Your task to perform on an android device: turn off improve location accuracy Image 0: 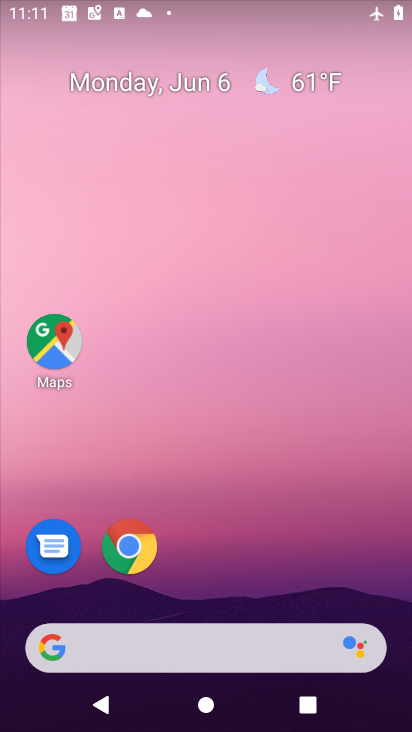
Step 0: drag from (360, 581) to (337, 20)
Your task to perform on an android device: turn off improve location accuracy Image 1: 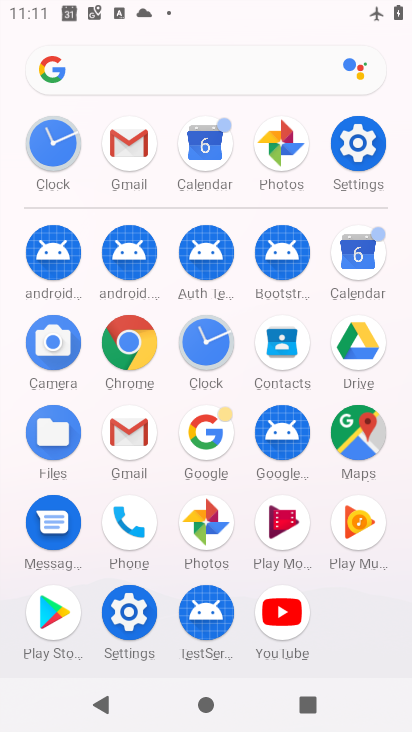
Step 1: click (132, 614)
Your task to perform on an android device: turn off improve location accuracy Image 2: 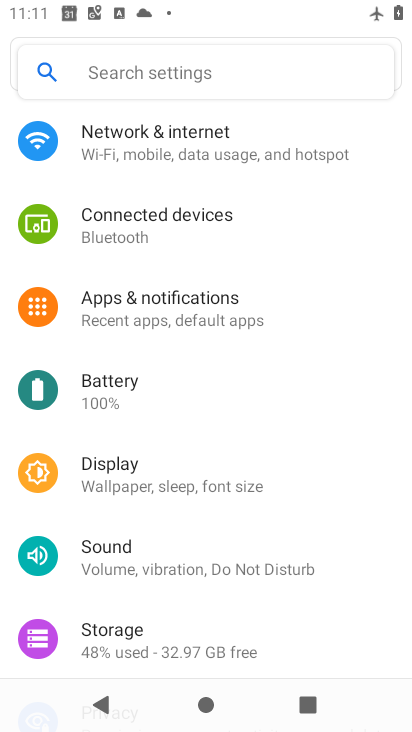
Step 2: drag from (313, 597) to (284, 225)
Your task to perform on an android device: turn off improve location accuracy Image 3: 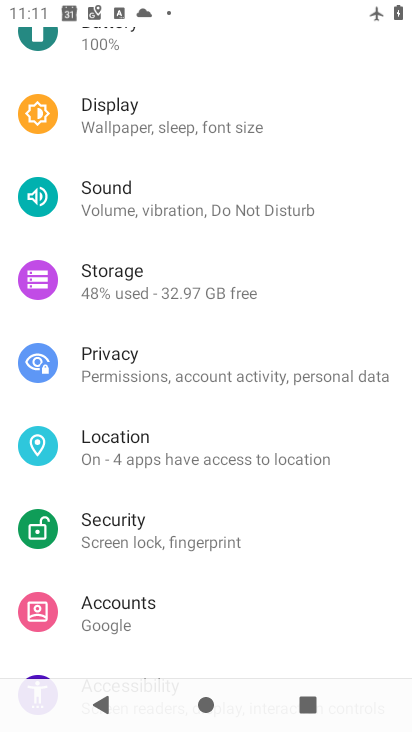
Step 3: click (111, 456)
Your task to perform on an android device: turn off improve location accuracy Image 4: 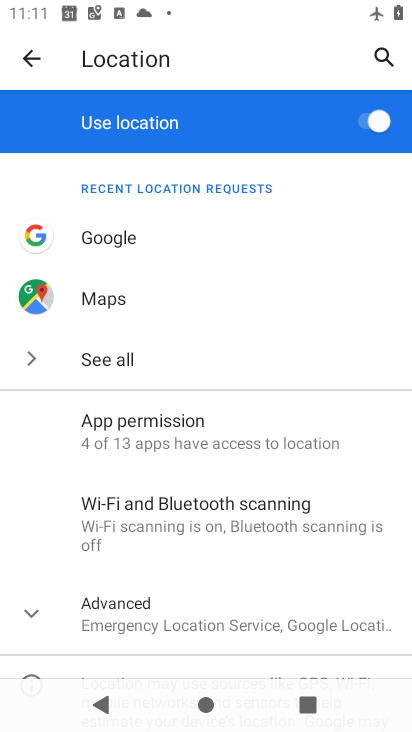
Step 4: click (58, 609)
Your task to perform on an android device: turn off improve location accuracy Image 5: 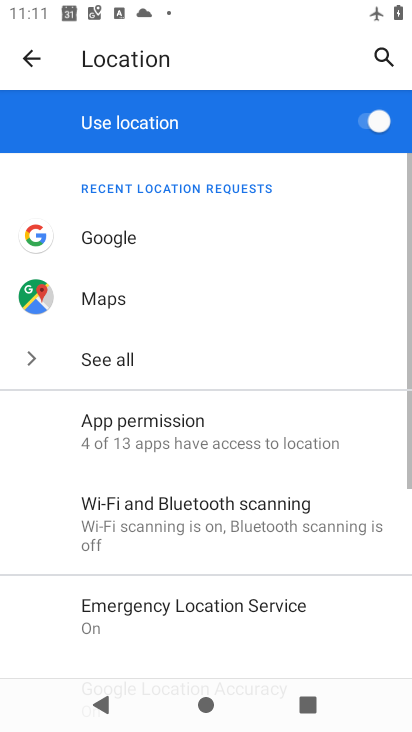
Step 5: drag from (227, 612) to (219, 220)
Your task to perform on an android device: turn off improve location accuracy Image 6: 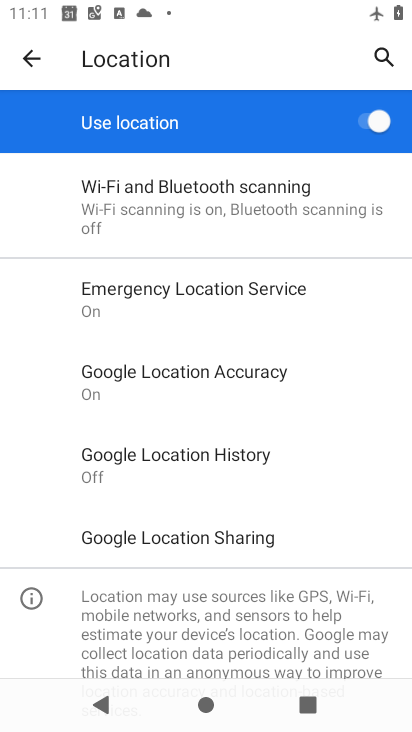
Step 6: click (168, 379)
Your task to perform on an android device: turn off improve location accuracy Image 7: 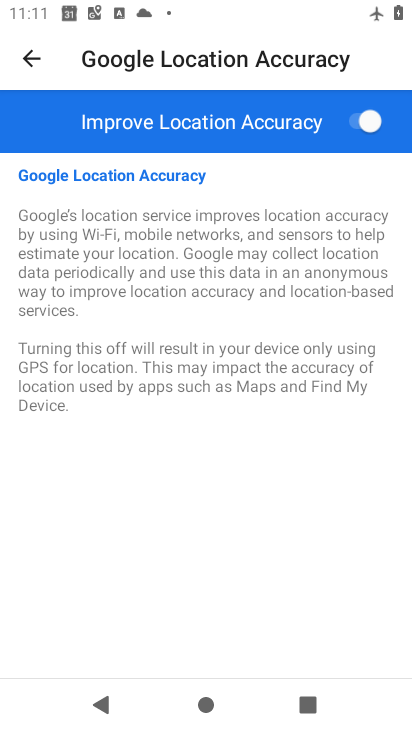
Step 7: click (351, 116)
Your task to perform on an android device: turn off improve location accuracy Image 8: 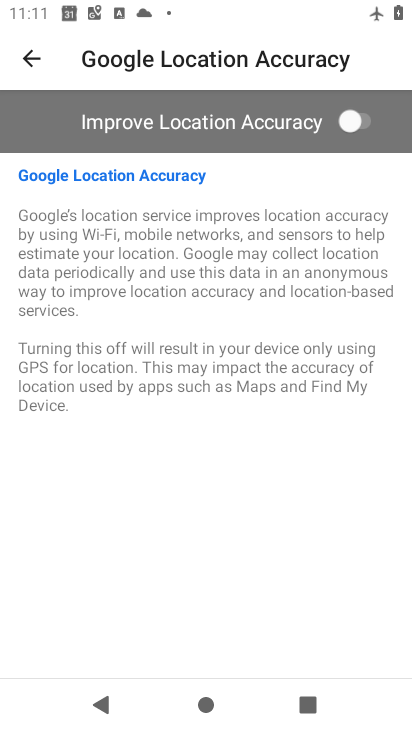
Step 8: task complete